Your task to perform on an android device: change the clock display to show seconds Image 0: 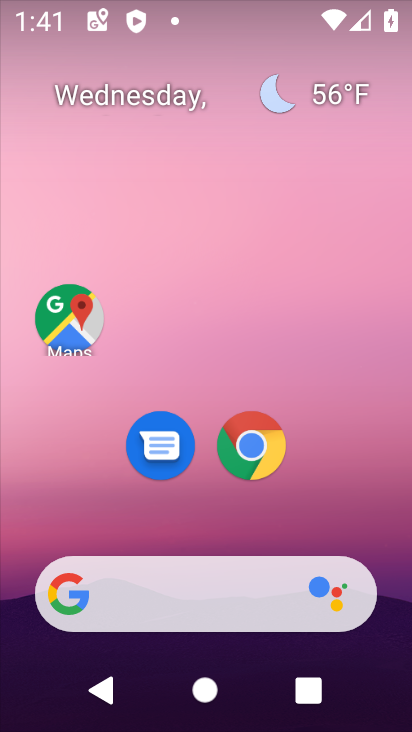
Step 0: drag from (168, 541) to (127, 729)
Your task to perform on an android device: change the clock display to show seconds Image 1: 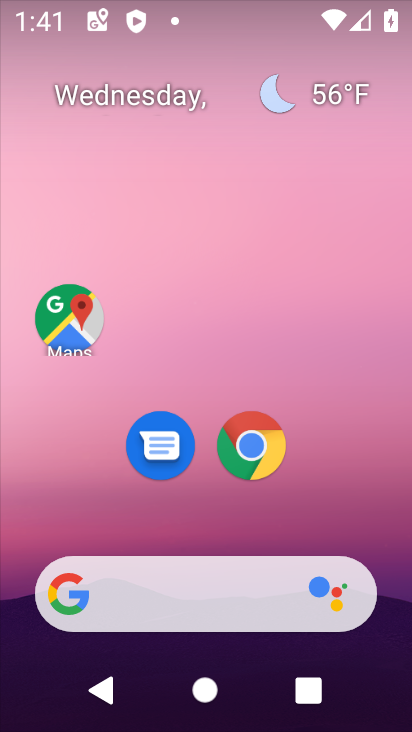
Step 1: drag from (257, 566) to (115, 16)
Your task to perform on an android device: change the clock display to show seconds Image 2: 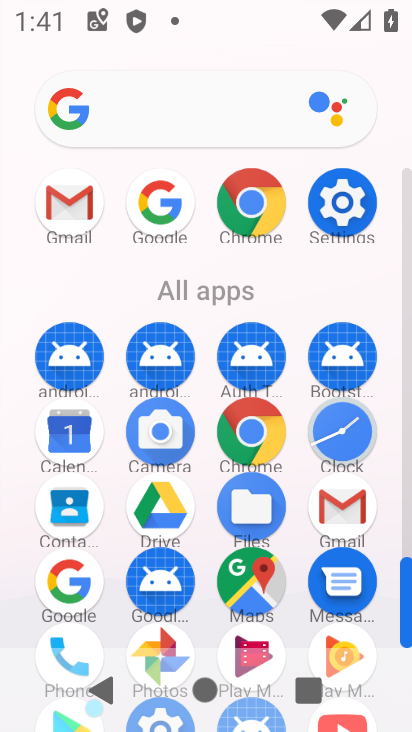
Step 2: click (354, 439)
Your task to perform on an android device: change the clock display to show seconds Image 3: 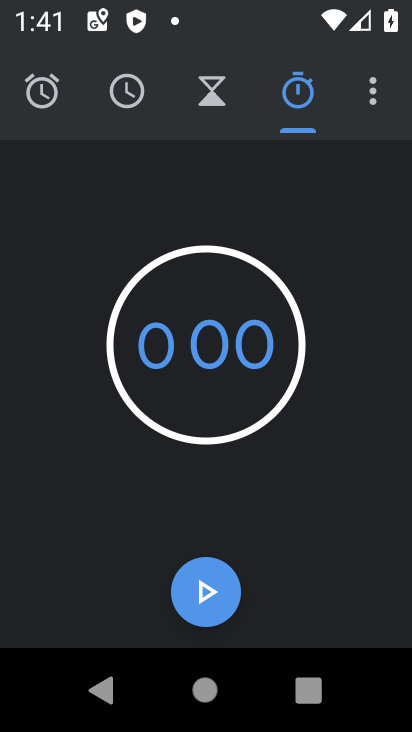
Step 3: click (355, 97)
Your task to perform on an android device: change the clock display to show seconds Image 4: 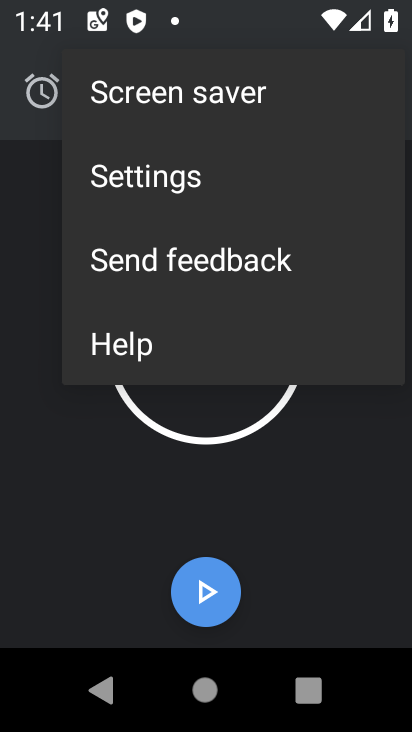
Step 4: click (175, 199)
Your task to perform on an android device: change the clock display to show seconds Image 5: 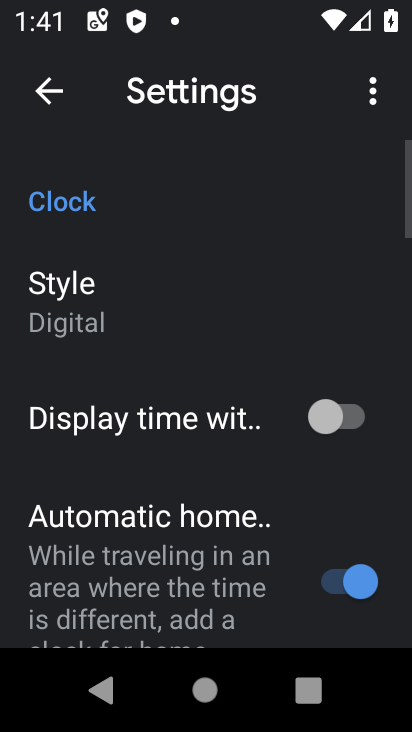
Step 5: click (320, 415)
Your task to perform on an android device: change the clock display to show seconds Image 6: 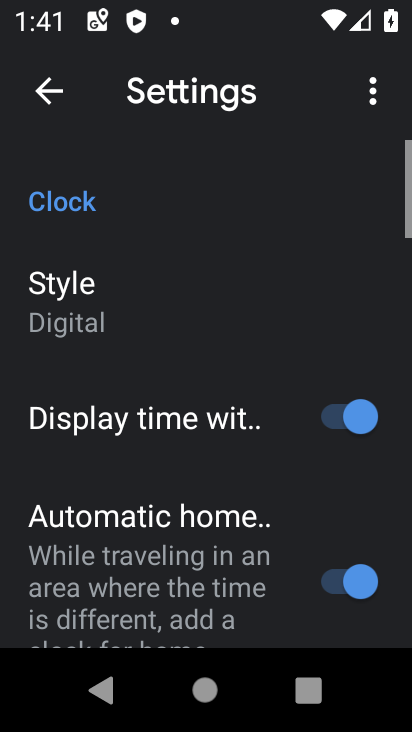
Step 6: task complete